Your task to perform on an android device: open chrome privacy settings Image 0: 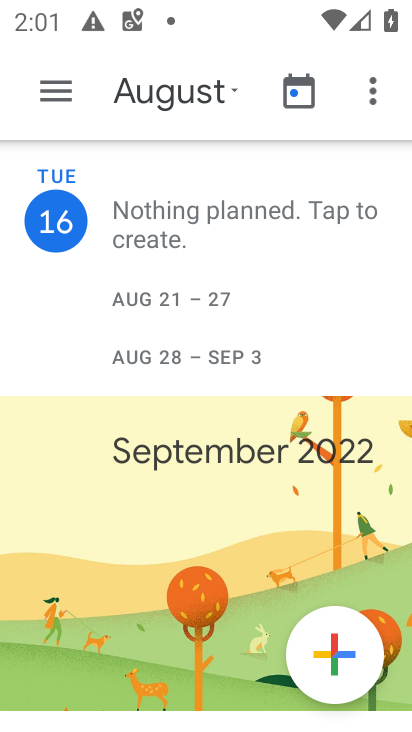
Step 0: press home button
Your task to perform on an android device: open chrome privacy settings Image 1: 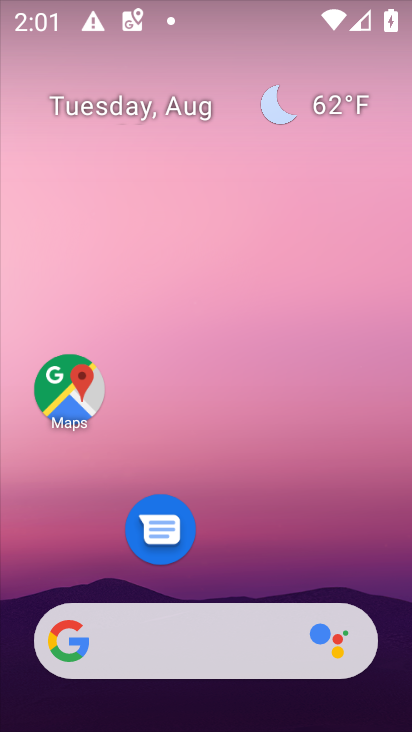
Step 1: drag from (269, 586) to (232, 70)
Your task to perform on an android device: open chrome privacy settings Image 2: 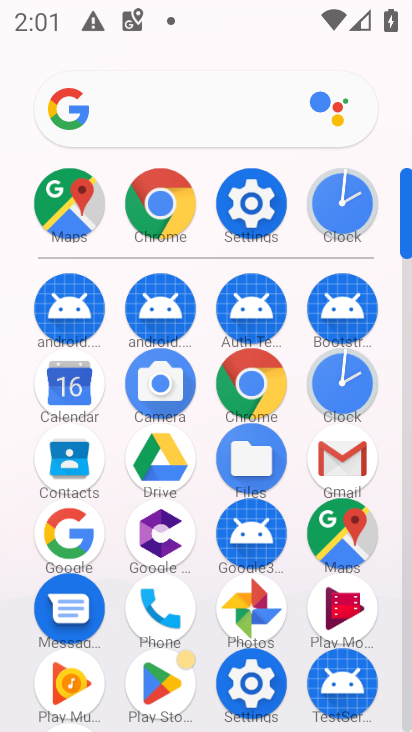
Step 2: click (186, 219)
Your task to perform on an android device: open chrome privacy settings Image 3: 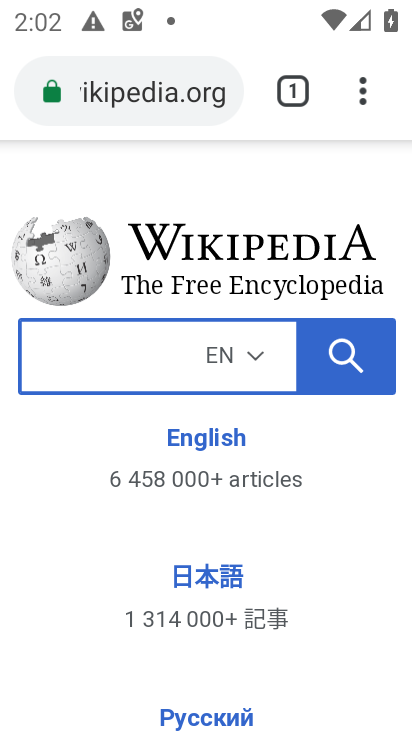
Step 3: click (358, 97)
Your task to perform on an android device: open chrome privacy settings Image 4: 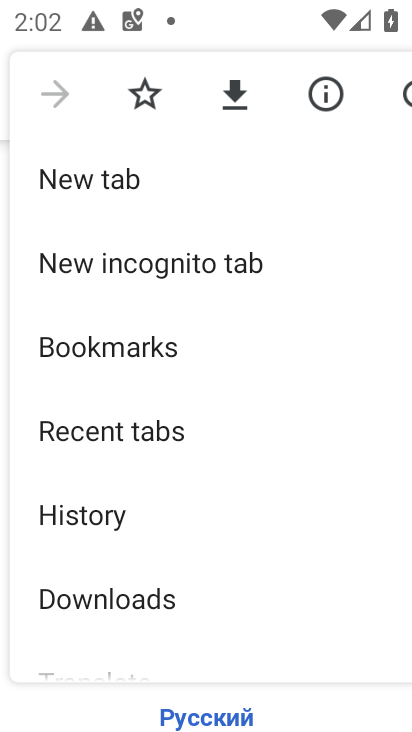
Step 4: drag from (201, 542) to (215, 115)
Your task to perform on an android device: open chrome privacy settings Image 5: 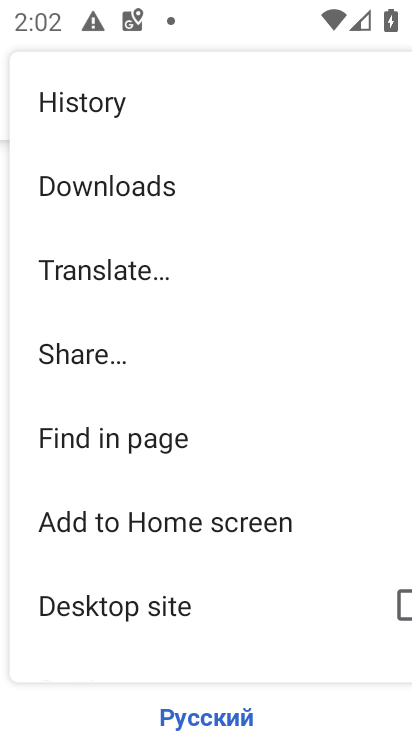
Step 5: drag from (171, 599) to (148, 171)
Your task to perform on an android device: open chrome privacy settings Image 6: 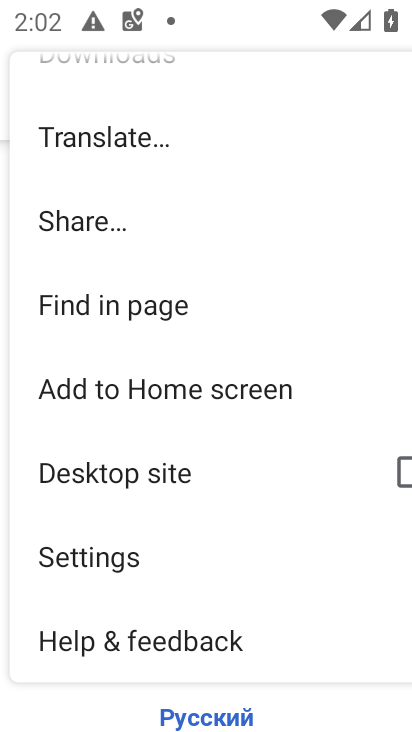
Step 6: click (140, 562)
Your task to perform on an android device: open chrome privacy settings Image 7: 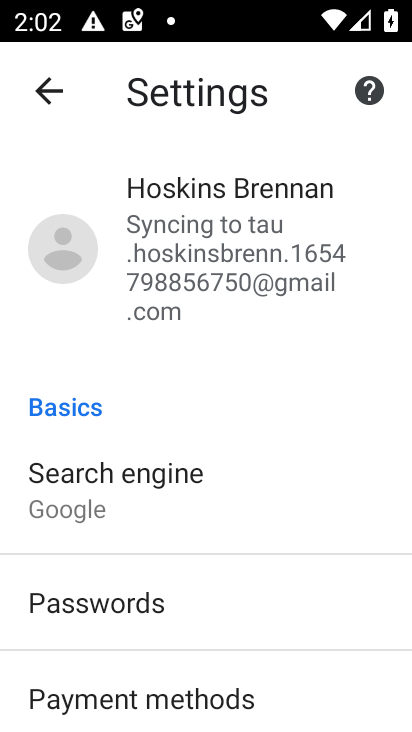
Step 7: drag from (160, 673) to (114, 323)
Your task to perform on an android device: open chrome privacy settings Image 8: 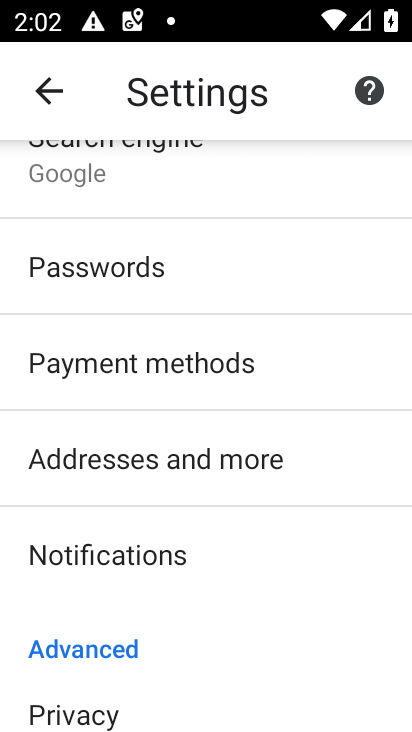
Step 8: click (114, 696)
Your task to perform on an android device: open chrome privacy settings Image 9: 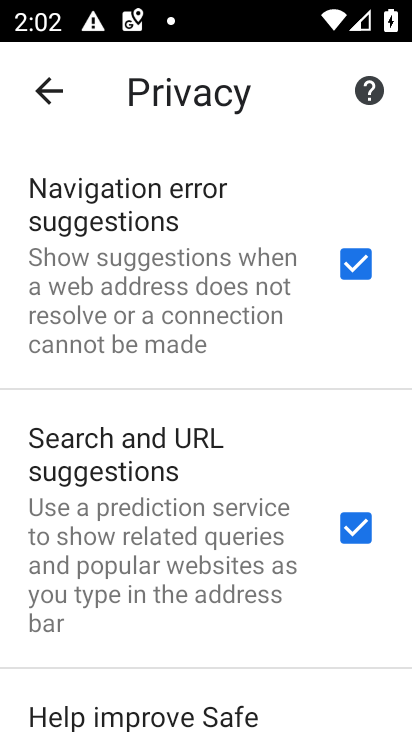
Step 9: task complete